Your task to perform on an android device: find snoozed emails in the gmail app Image 0: 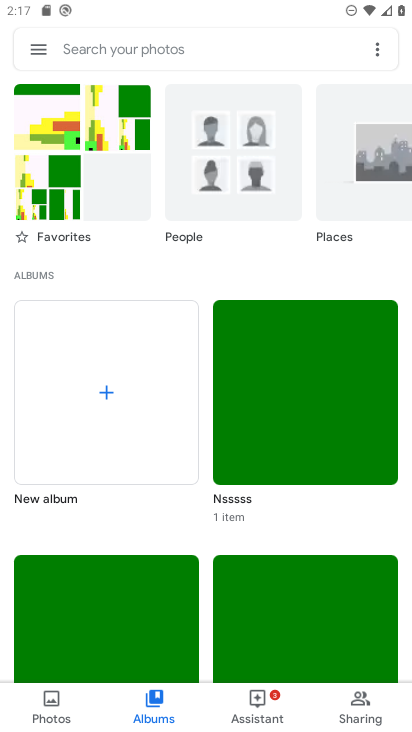
Step 0: press home button
Your task to perform on an android device: find snoozed emails in the gmail app Image 1: 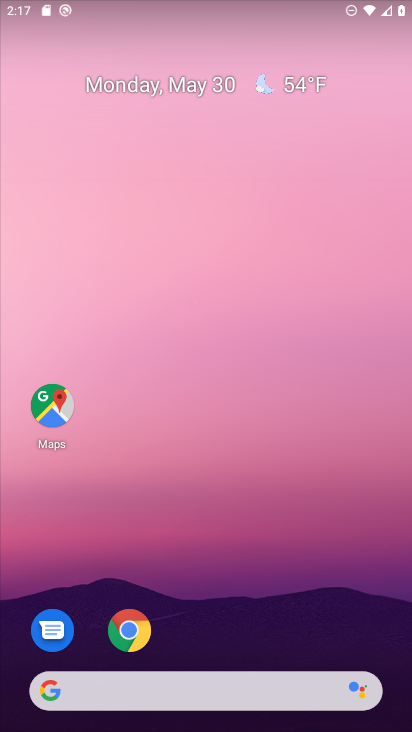
Step 1: drag from (287, 297) to (318, 172)
Your task to perform on an android device: find snoozed emails in the gmail app Image 2: 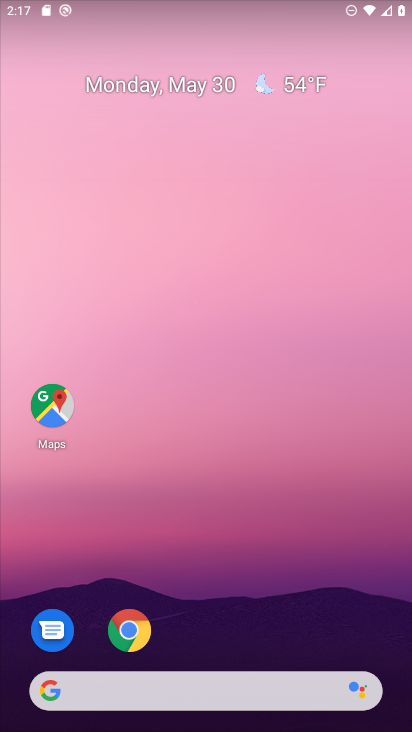
Step 2: drag from (207, 689) to (346, 126)
Your task to perform on an android device: find snoozed emails in the gmail app Image 3: 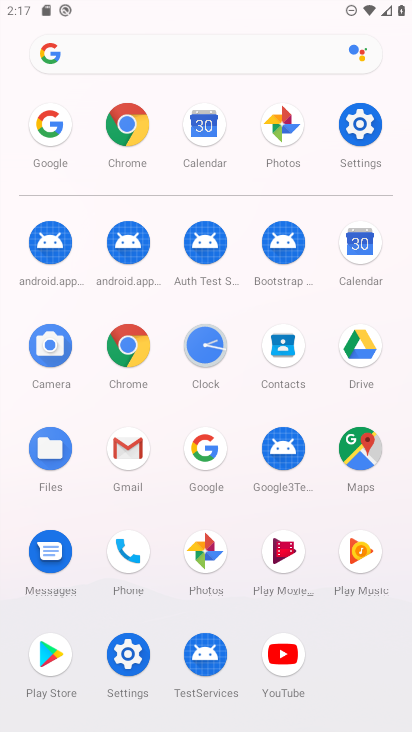
Step 3: click (128, 453)
Your task to perform on an android device: find snoozed emails in the gmail app Image 4: 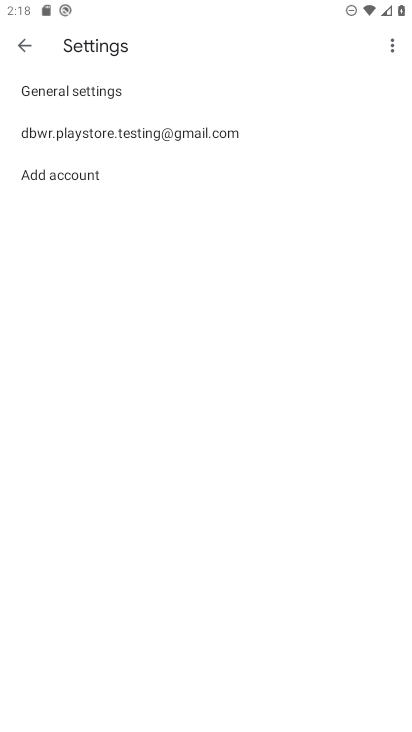
Step 4: click (24, 46)
Your task to perform on an android device: find snoozed emails in the gmail app Image 5: 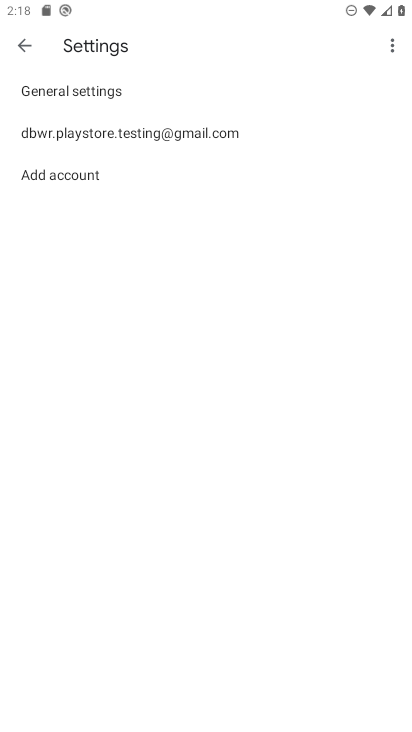
Step 5: click (24, 47)
Your task to perform on an android device: find snoozed emails in the gmail app Image 6: 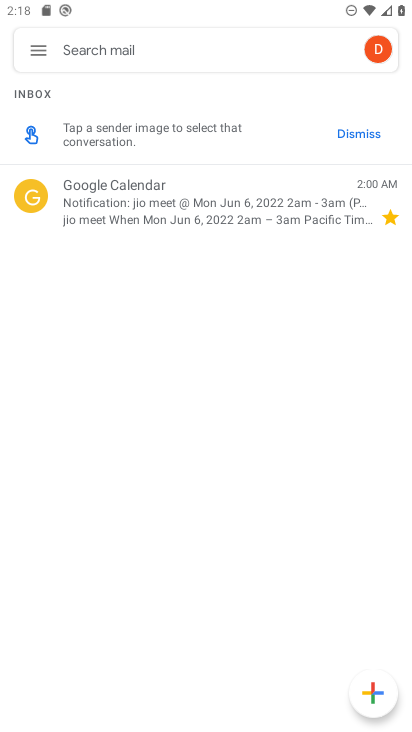
Step 6: click (34, 56)
Your task to perform on an android device: find snoozed emails in the gmail app Image 7: 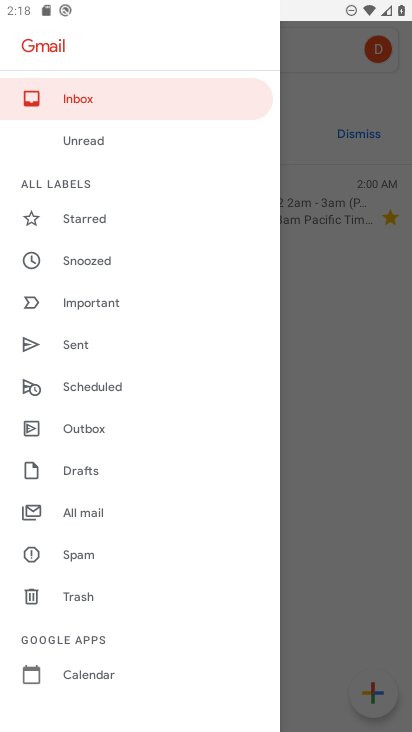
Step 7: click (95, 258)
Your task to perform on an android device: find snoozed emails in the gmail app Image 8: 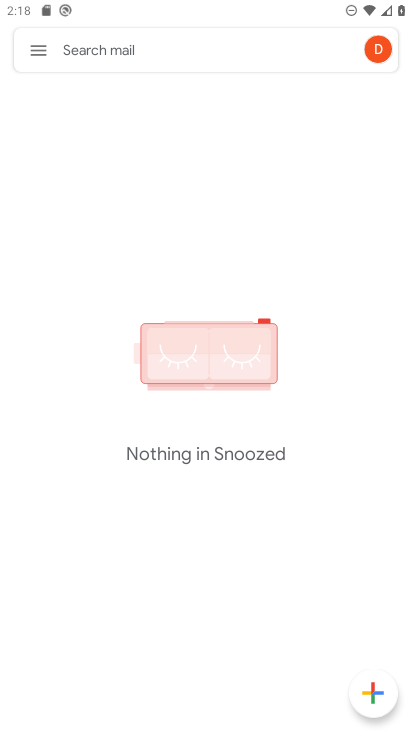
Step 8: task complete